Your task to perform on an android device: What's the weather going to be this weekend? Image 0: 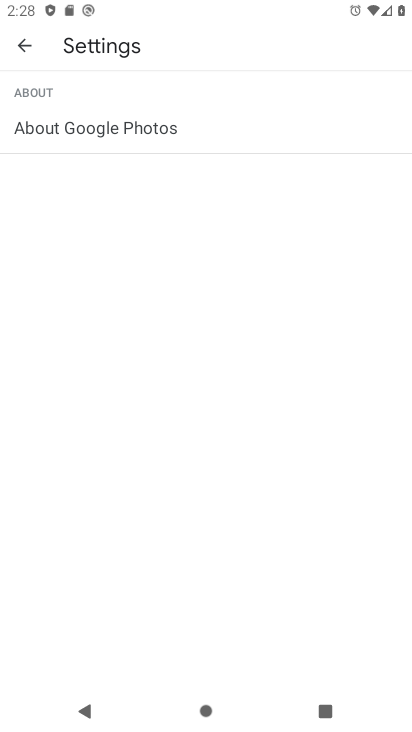
Step 0: press home button
Your task to perform on an android device: What's the weather going to be this weekend? Image 1: 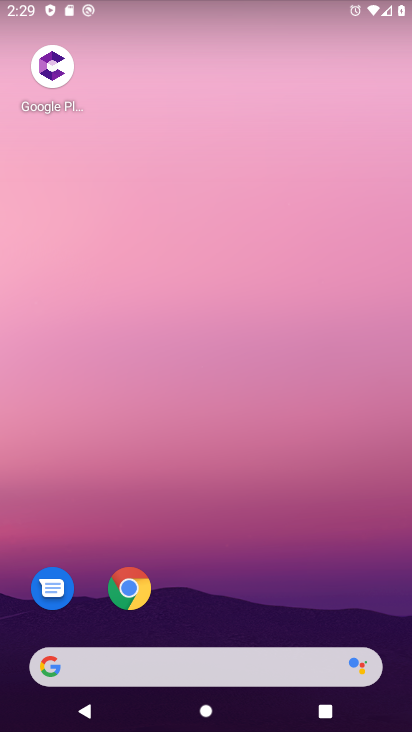
Step 1: drag from (23, 287) to (408, 355)
Your task to perform on an android device: What's the weather going to be this weekend? Image 2: 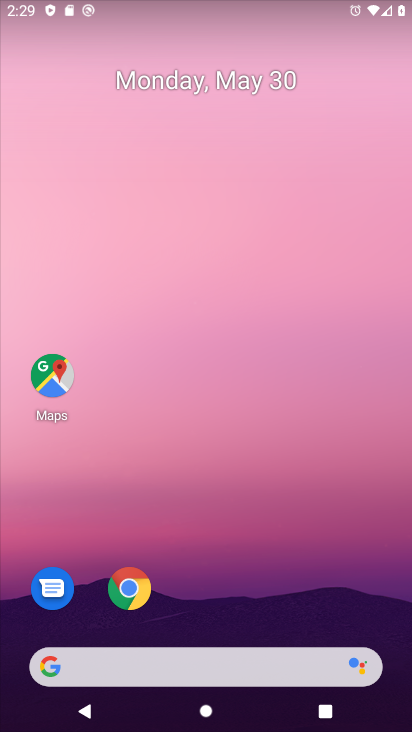
Step 2: drag from (10, 214) to (403, 176)
Your task to perform on an android device: What's the weather going to be this weekend? Image 3: 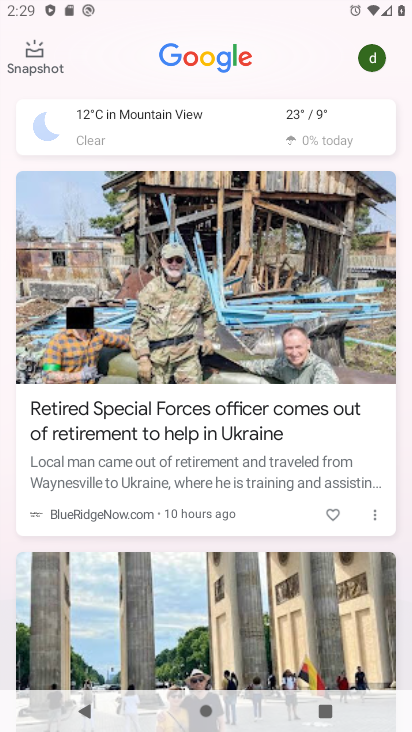
Step 3: click (298, 122)
Your task to perform on an android device: What's the weather going to be this weekend? Image 4: 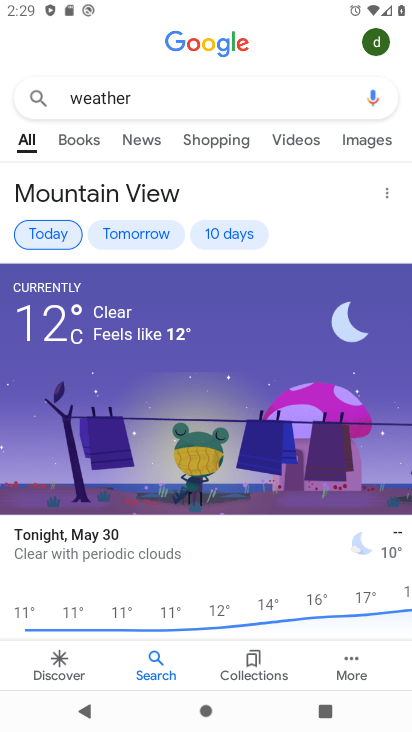
Step 4: click (229, 232)
Your task to perform on an android device: What's the weather going to be this weekend? Image 5: 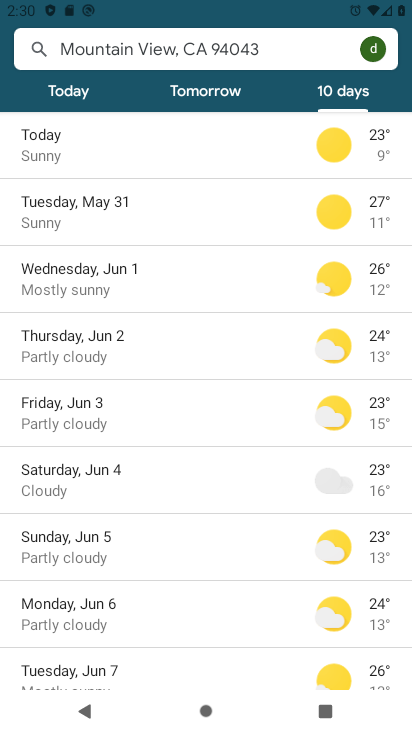
Step 5: task complete